Your task to perform on an android device: change the clock display to analog Image 0: 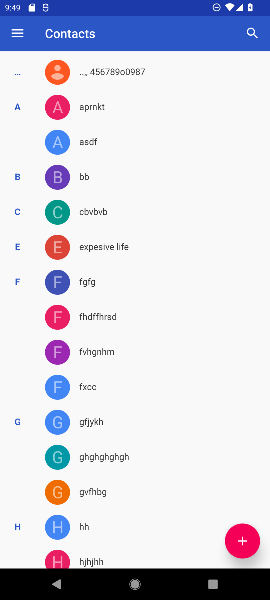
Step 0: press home button
Your task to perform on an android device: change the clock display to analog Image 1: 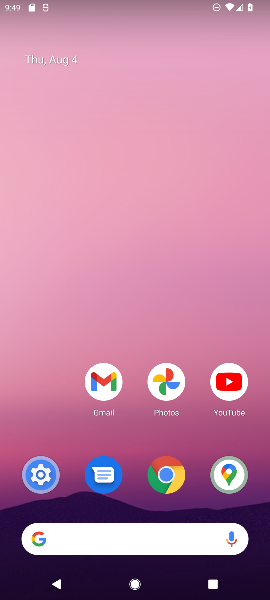
Step 1: drag from (144, 471) to (31, 401)
Your task to perform on an android device: change the clock display to analog Image 2: 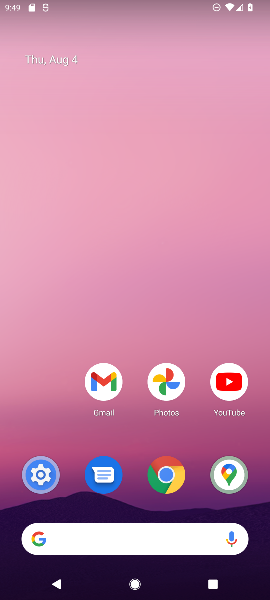
Step 2: drag from (147, 498) to (230, 98)
Your task to perform on an android device: change the clock display to analog Image 3: 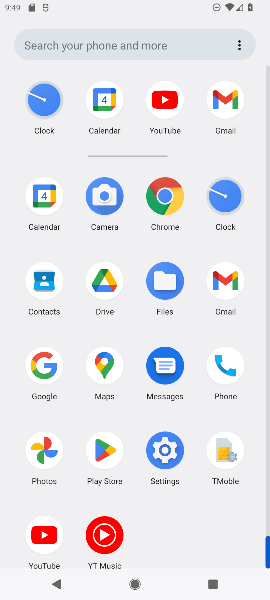
Step 3: click (233, 199)
Your task to perform on an android device: change the clock display to analog Image 4: 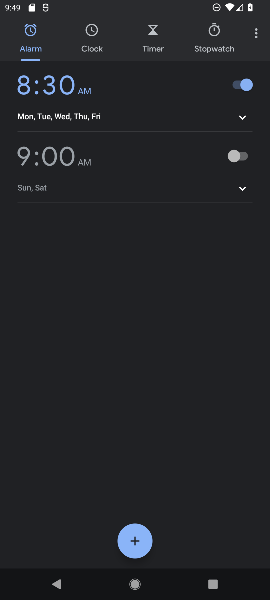
Step 4: click (252, 33)
Your task to perform on an android device: change the clock display to analog Image 5: 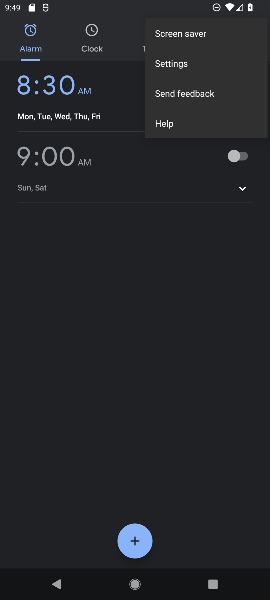
Step 5: click (186, 59)
Your task to perform on an android device: change the clock display to analog Image 6: 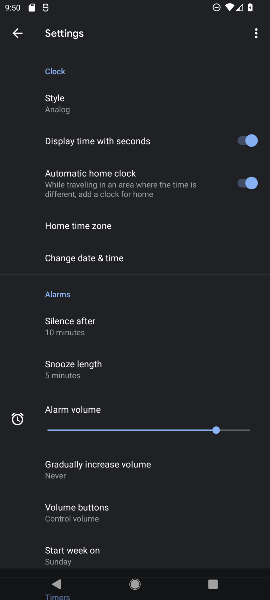
Step 6: drag from (136, 100) to (198, 442)
Your task to perform on an android device: change the clock display to analog Image 7: 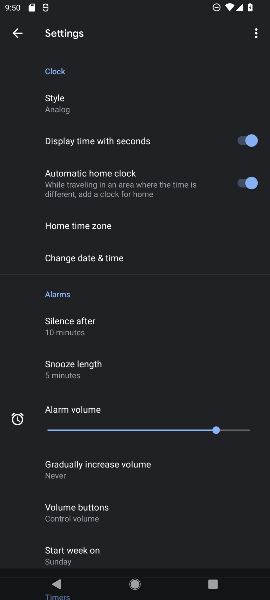
Step 7: drag from (110, 137) to (230, 400)
Your task to perform on an android device: change the clock display to analog Image 8: 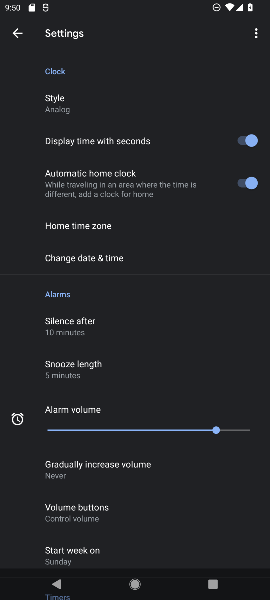
Step 8: click (92, 97)
Your task to perform on an android device: change the clock display to analog Image 9: 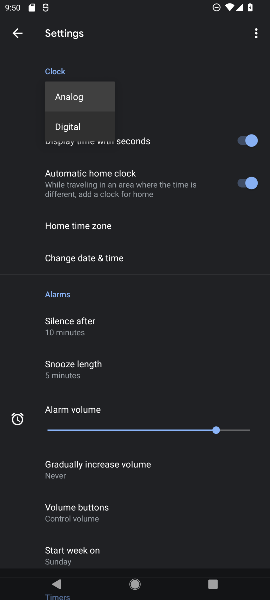
Step 9: task complete